Your task to perform on an android device: toggle javascript in the chrome app Image 0: 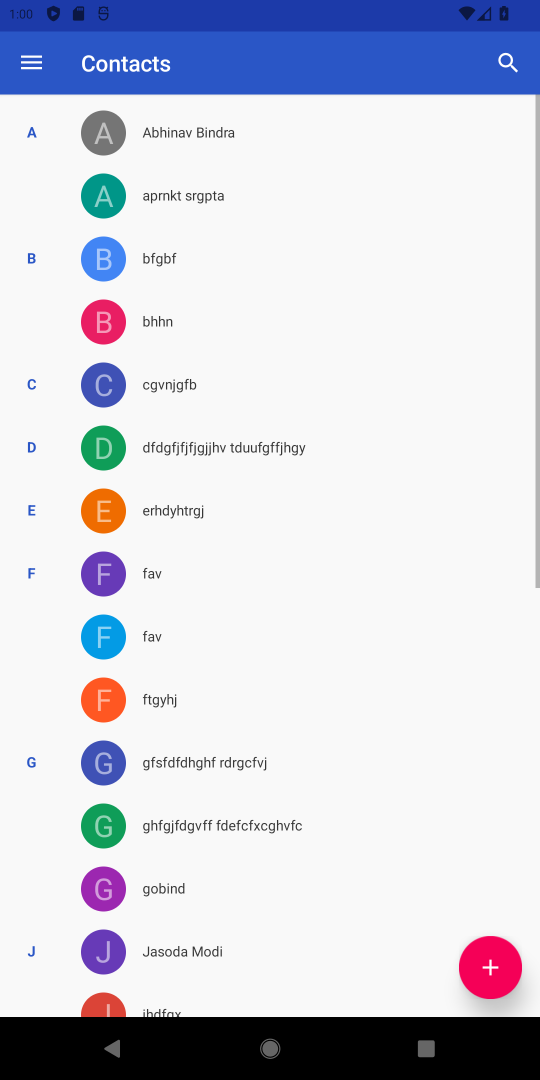
Step 0: click (380, 476)
Your task to perform on an android device: toggle javascript in the chrome app Image 1: 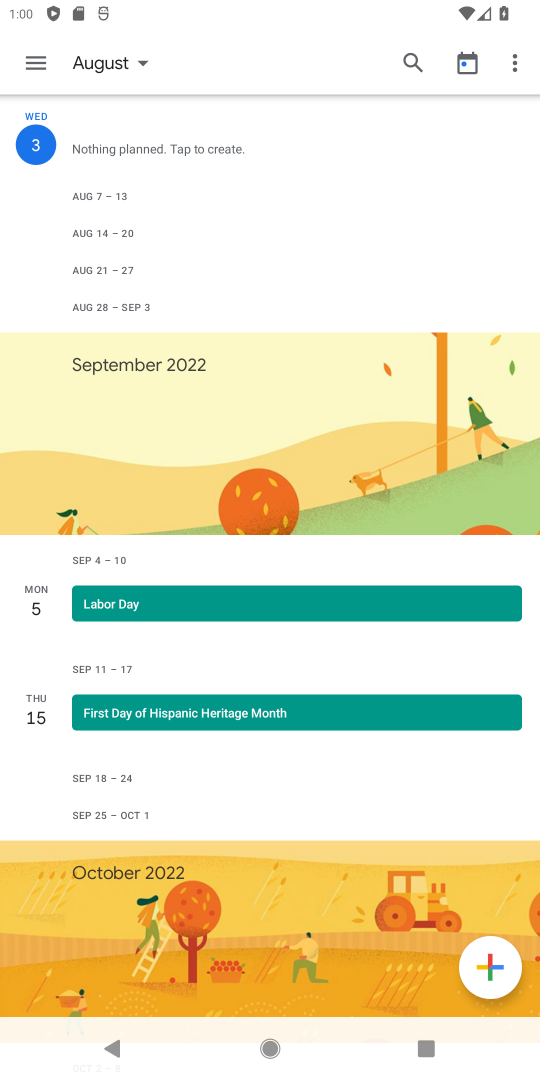
Step 1: press home button
Your task to perform on an android device: toggle javascript in the chrome app Image 2: 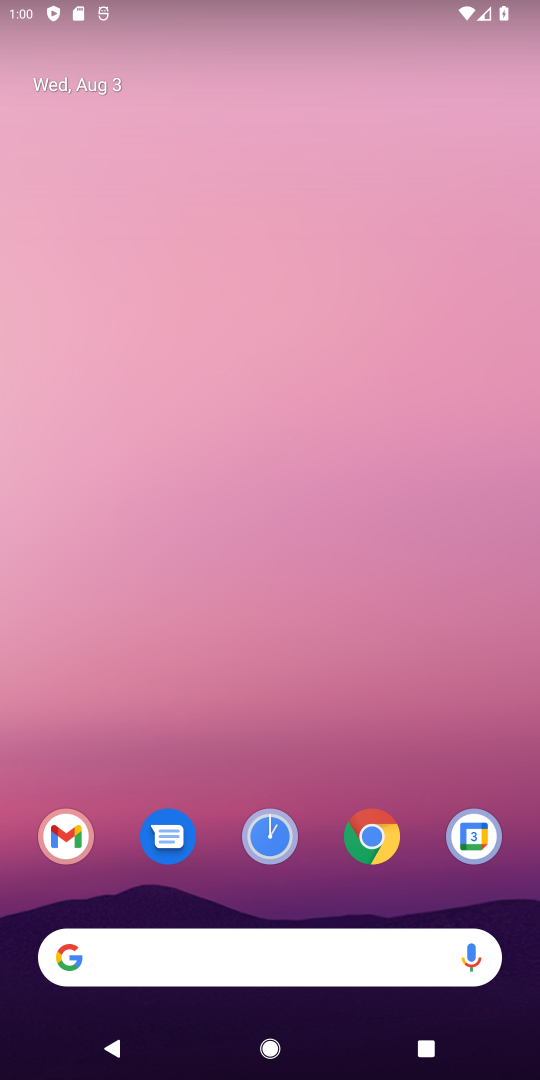
Step 2: drag from (267, 833) to (333, 250)
Your task to perform on an android device: toggle javascript in the chrome app Image 3: 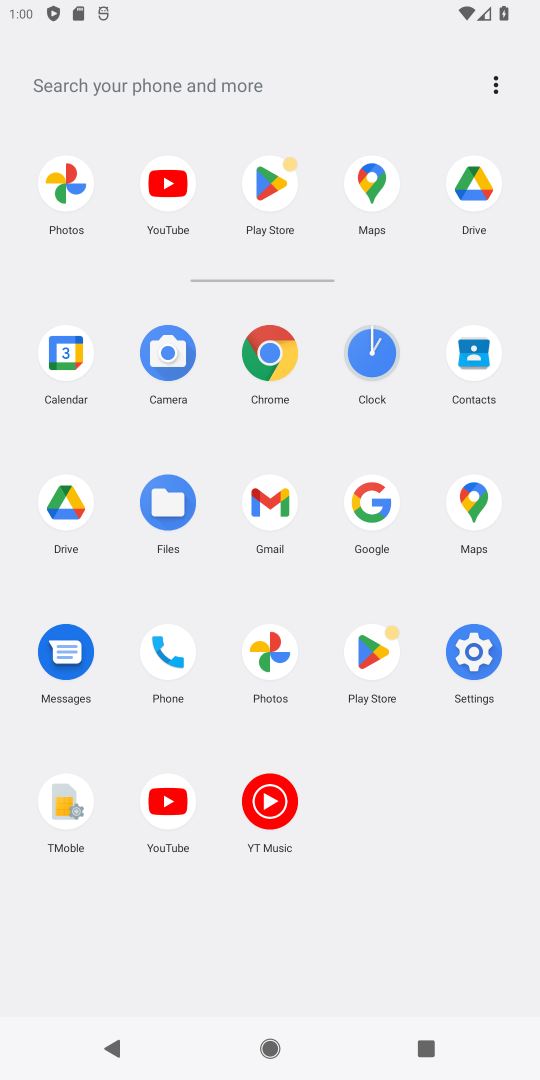
Step 3: click (264, 349)
Your task to perform on an android device: toggle javascript in the chrome app Image 4: 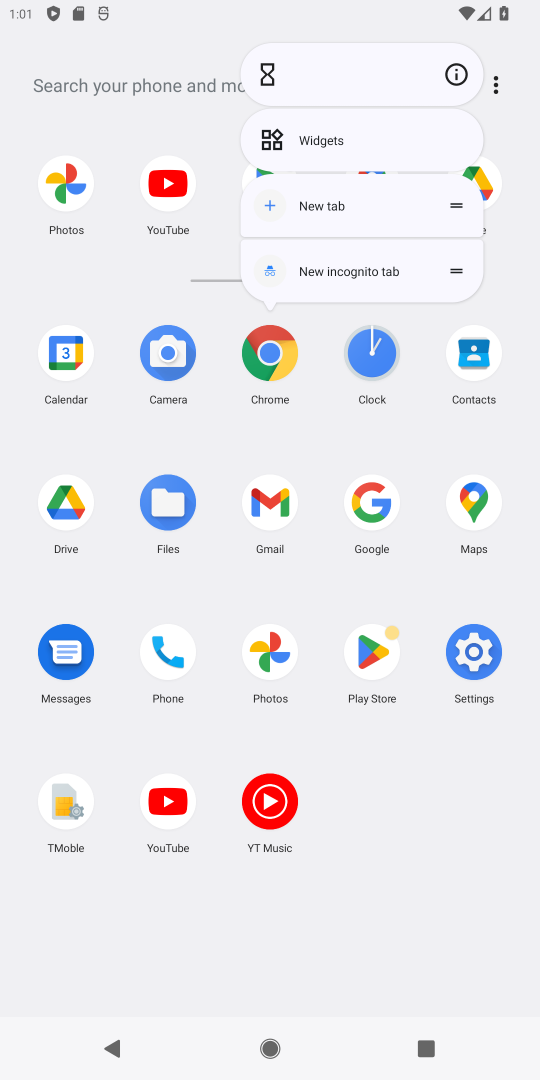
Step 4: click (446, 86)
Your task to perform on an android device: toggle javascript in the chrome app Image 5: 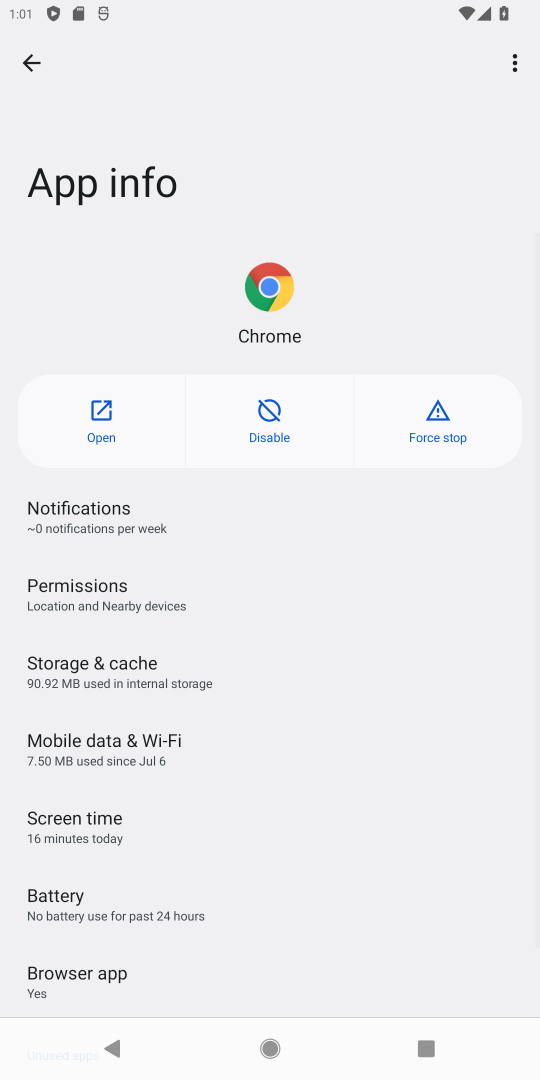
Step 5: click (108, 394)
Your task to perform on an android device: toggle javascript in the chrome app Image 6: 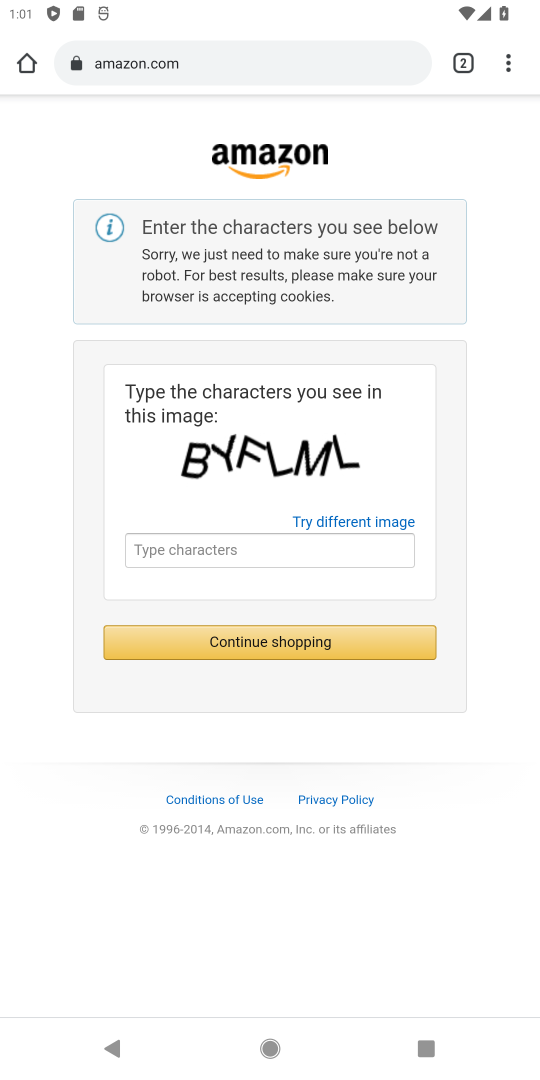
Step 6: drag from (509, 57) to (360, 758)
Your task to perform on an android device: toggle javascript in the chrome app Image 7: 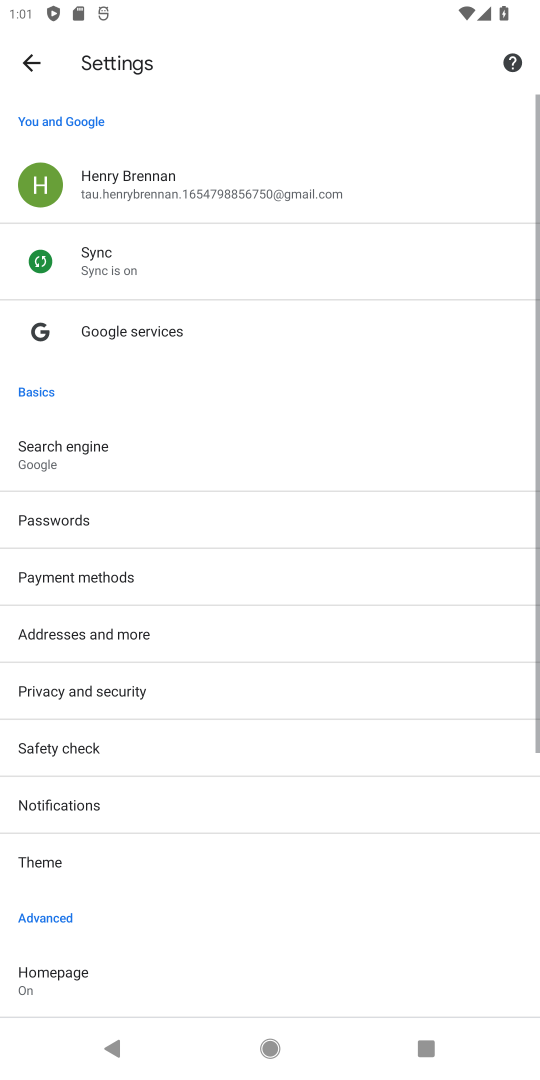
Step 7: drag from (388, 734) to (422, 219)
Your task to perform on an android device: toggle javascript in the chrome app Image 8: 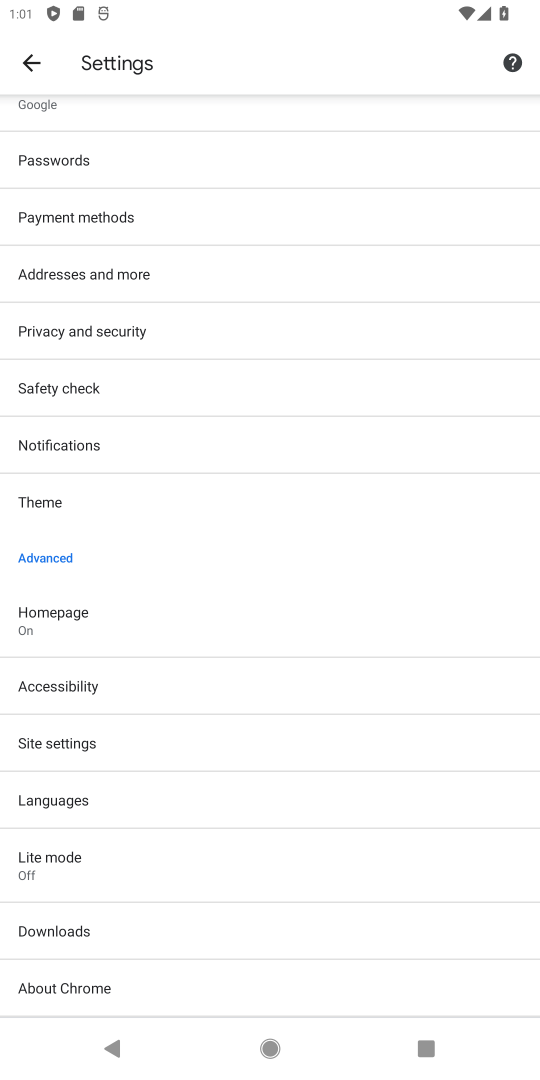
Step 8: drag from (178, 933) to (325, 404)
Your task to perform on an android device: toggle javascript in the chrome app Image 9: 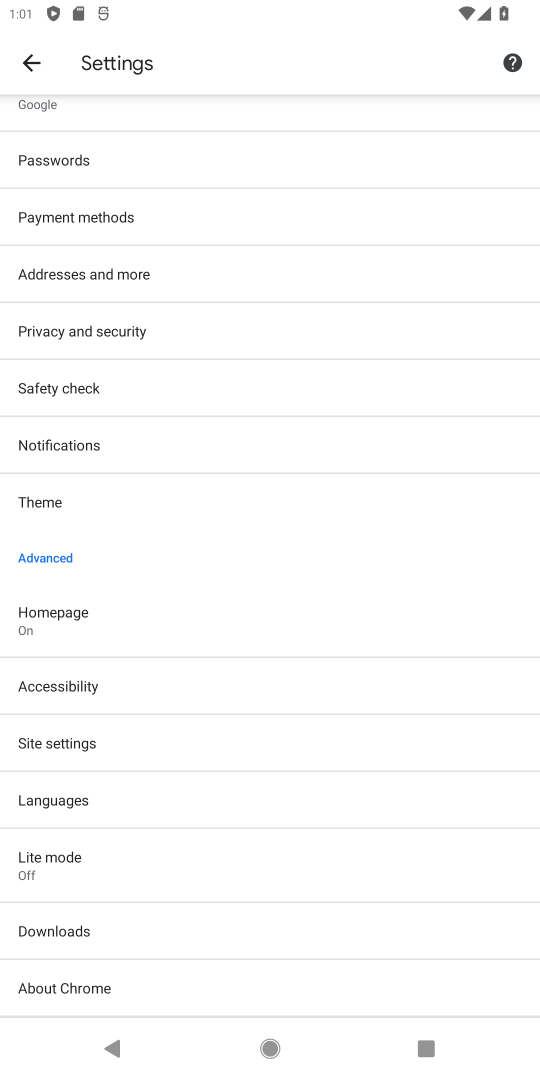
Step 9: click (117, 749)
Your task to perform on an android device: toggle javascript in the chrome app Image 10: 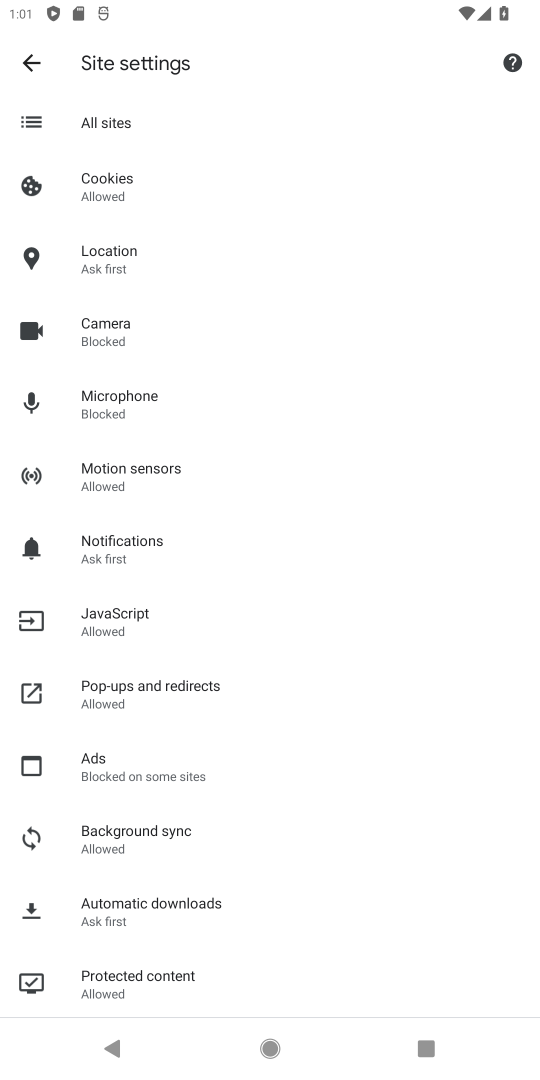
Step 10: click (123, 615)
Your task to perform on an android device: toggle javascript in the chrome app Image 11: 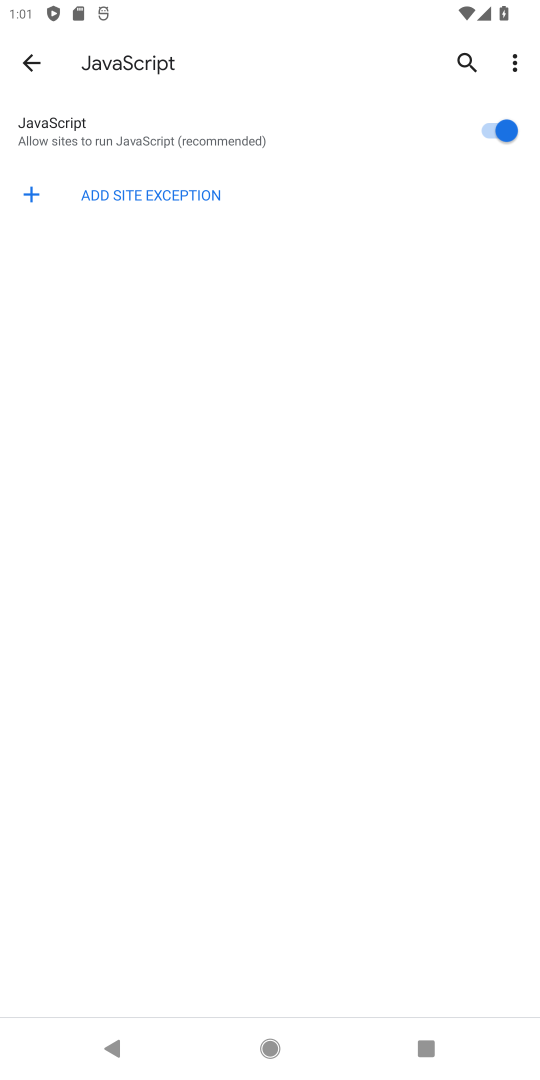
Step 11: click (490, 110)
Your task to perform on an android device: toggle javascript in the chrome app Image 12: 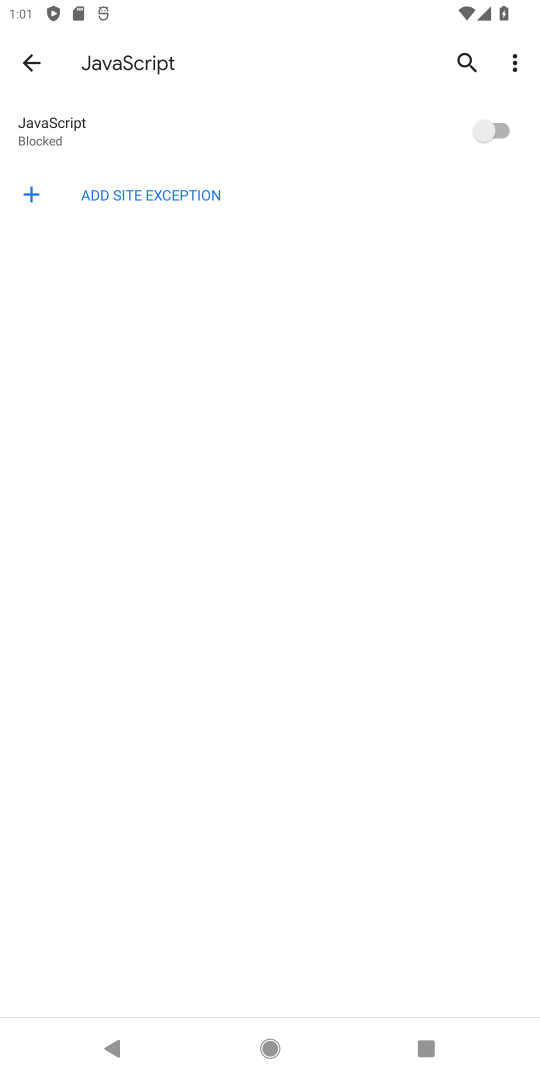
Step 12: task complete